Your task to perform on an android device: star an email in the gmail app Image 0: 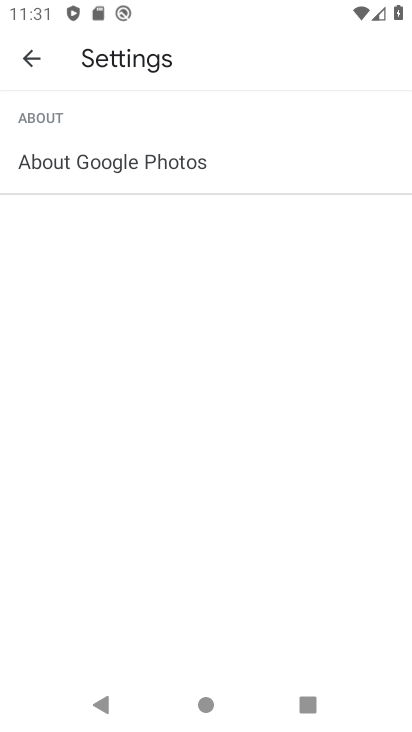
Step 0: press home button
Your task to perform on an android device: star an email in the gmail app Image 1: 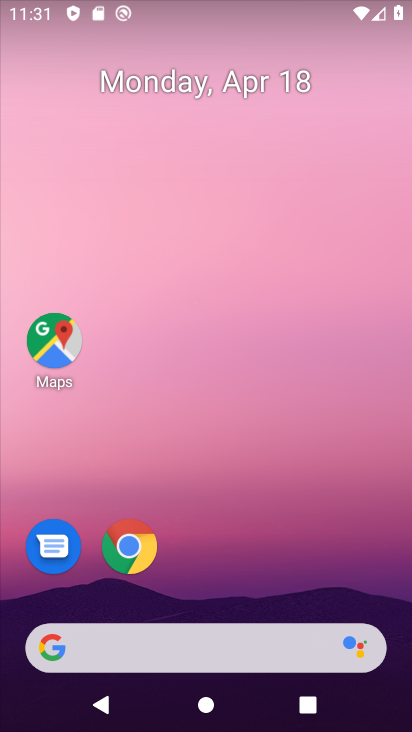
Step 1: drag from (235, 603) to (238, 396)
Your task to perform on an android device: star an email in the gmail app Image 2: 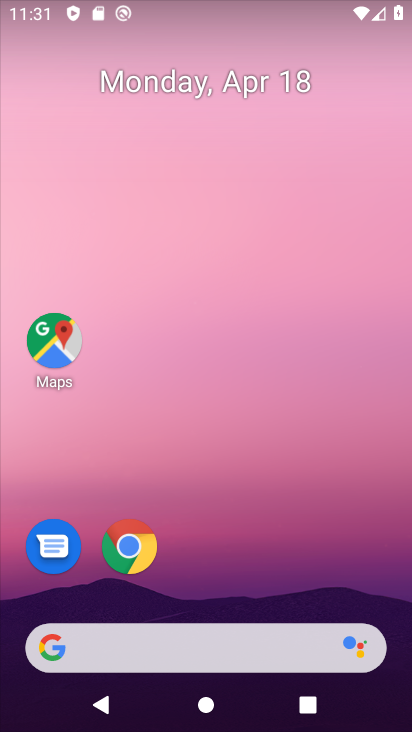
Step 2: drag from (239, 524) to (252, 238)
Your task to perform on an android device: star an email in the gmail app Image 3: 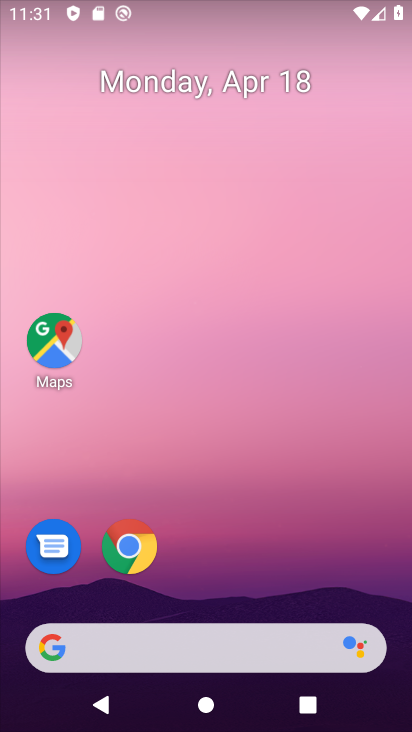
Step 3: drag from (290, 576) to (212, 59)
Your task to perform on an android device: star an email in the gmail app Image 4: 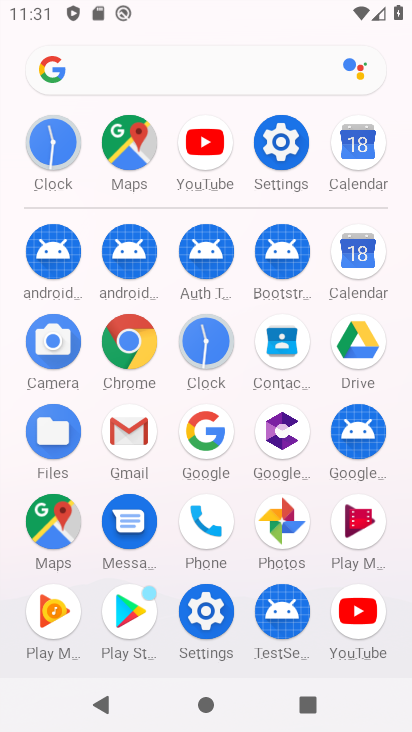
Step 4: click (142, 442)
Your task to perform on an android device: star an email in the gmail app Image 5: 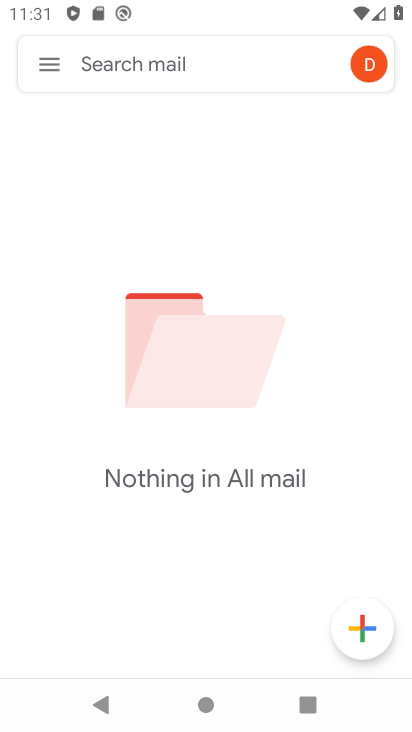
Step 5: click (49, 61)
Your task to perform on an android device: star an email in the gmail app Image 6: 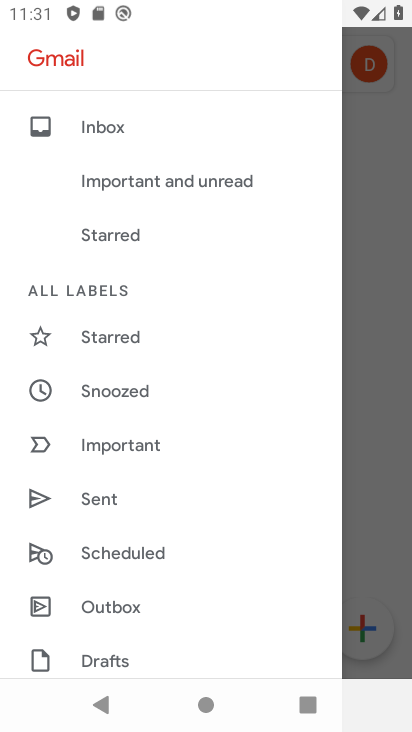
Step 6: drag from (178, 569) to (178, 190)
Your task to perform on an android device: star an email in the gmail app Image 7: 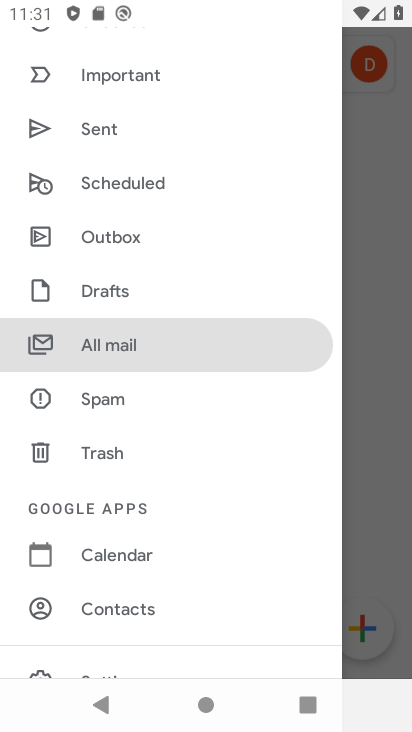
Step 7: click (119, 342)
Your task to perform on an android device: star an email in the gmail app Image 8: 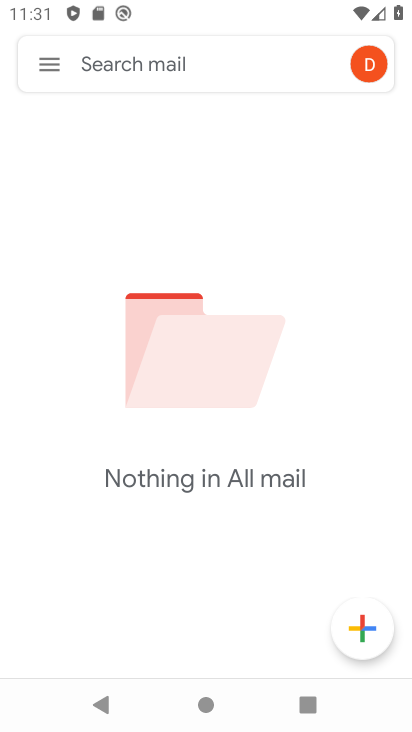
Step 8: task complete